Your task to perform on an android device: add a contact Image 0: 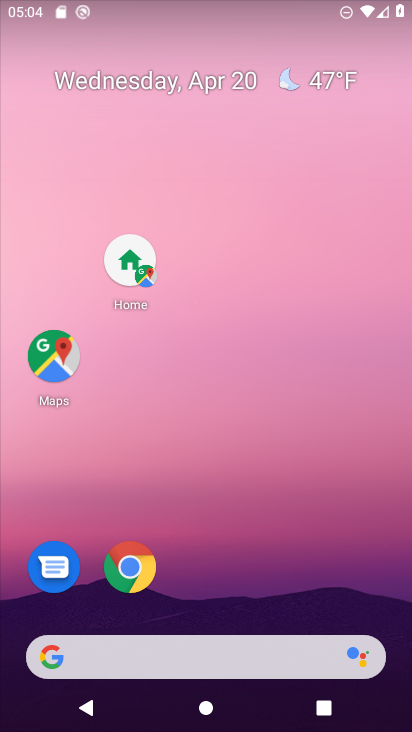
Step 0: drag from (171, 615) to (178, 12)
Your task to perform on an android device: add a contact Image 1: 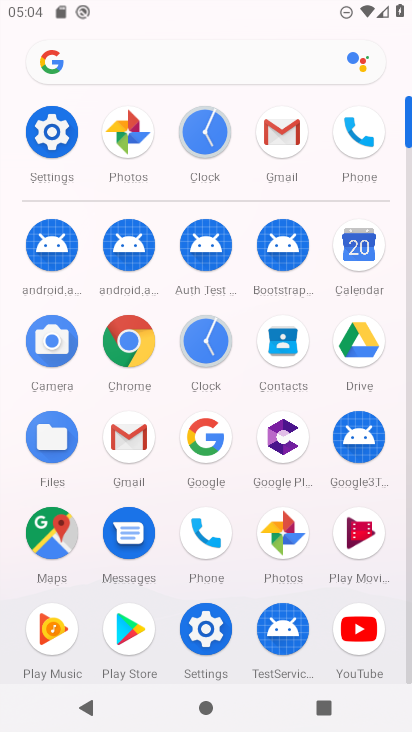
Step 1: click (287, 331)
Your task to perform on an android device: add a contact Image 2: 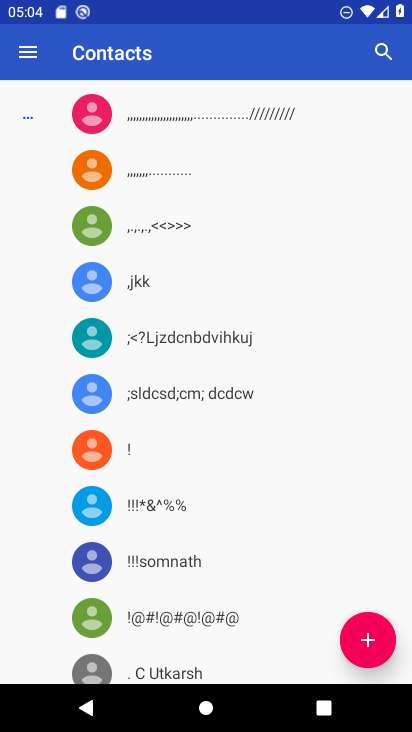
Step 2: click (372, 632)
Your task to perform on an android device: add a contact Image 3: 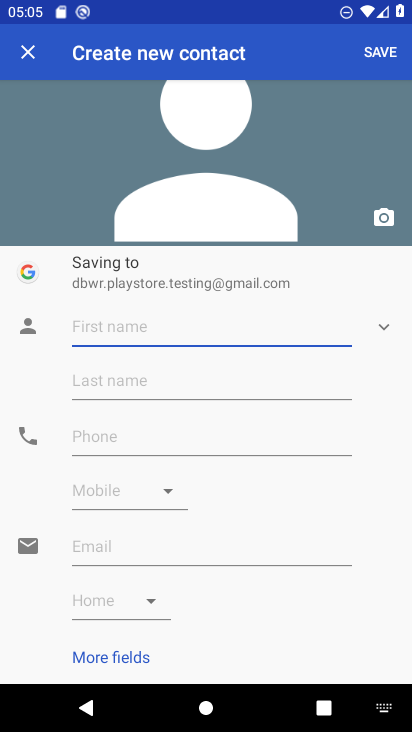
Step 3: type "reki"
Your task to perform on an android device: add a contact Image 4: 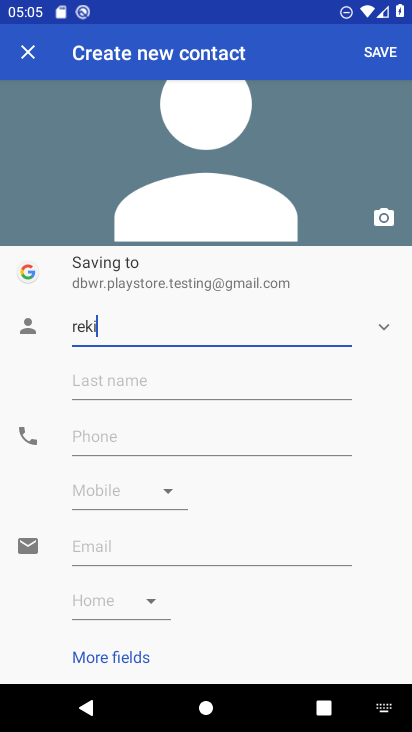
Step 4: click (99, 452)
Your task to perform on an android device: add a contact Image 5: 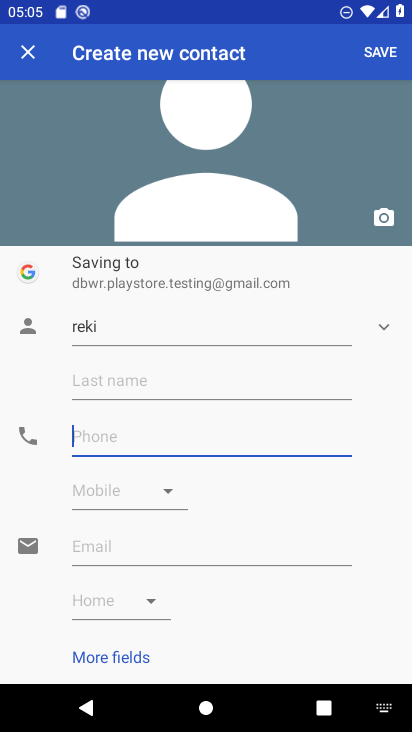
Step 5: type "876567890"
Your task to perform on an android device: add a contact Image 6: 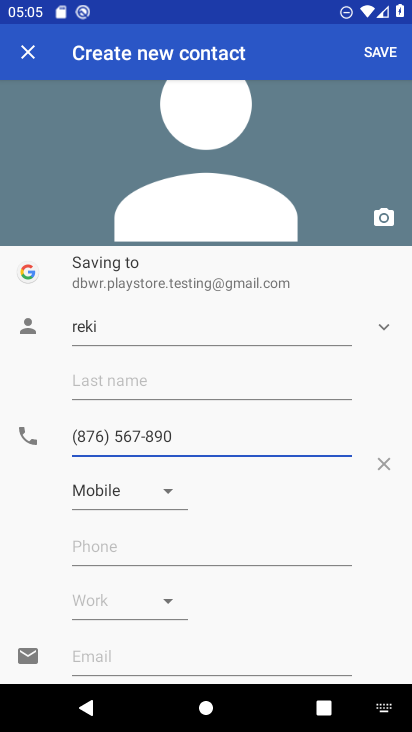
Step 6: click (381, 55)
Your task to perform on an android device: add a contact Image 7: 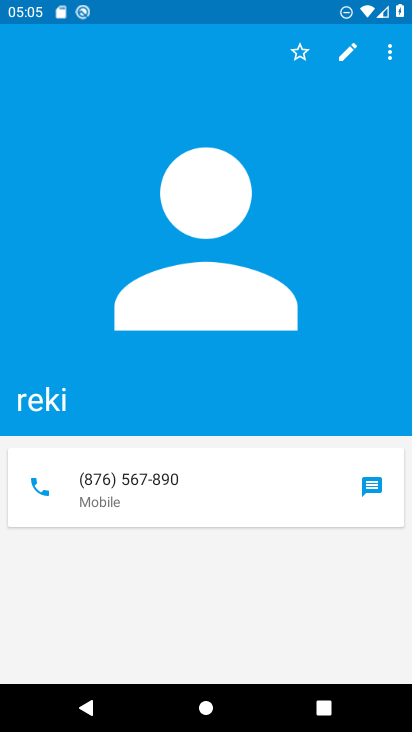
Step 7: task complete